Your task to perform on an android device: What's the news in Laos? Image 0: 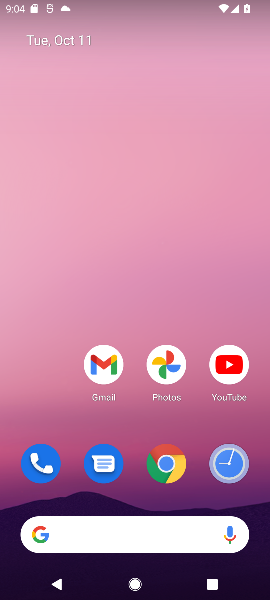
Step 0: drag from (103, 506) to (110, 241)
Your task to perform on an android device: What's the news in Laos? Image 1: 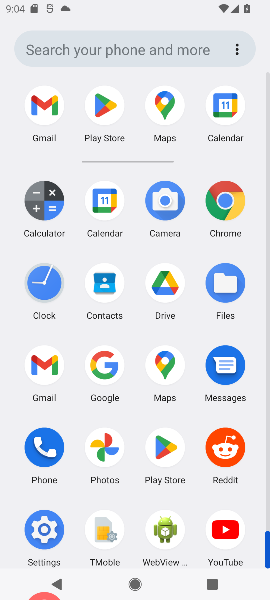
Step 1: click (99, 361)
Your task to perform on an android device: What's the news in Laos? Image 2: 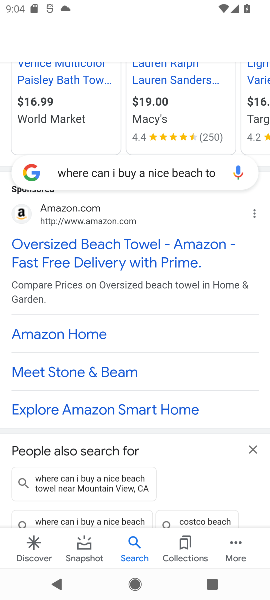
Step 2: click (93, 168)
Your task to perform on an android device: What's the news in Laos? Image 3: 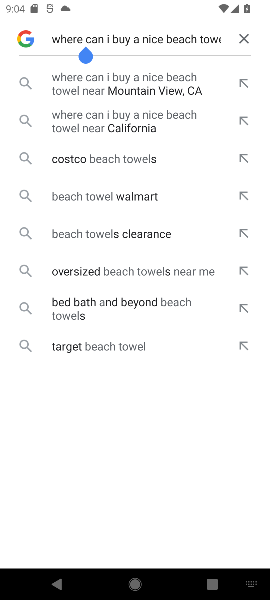
Step 3: click (247, 39)
Your task to perform on an android device: What's the news in Laos? Image 4: 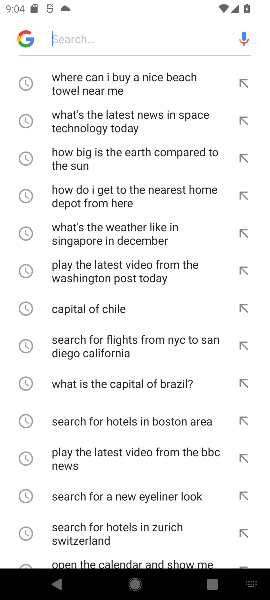
Step 4: click (129, 27)
Your task to perform on an android device: What's the news in Laos? Image 5: 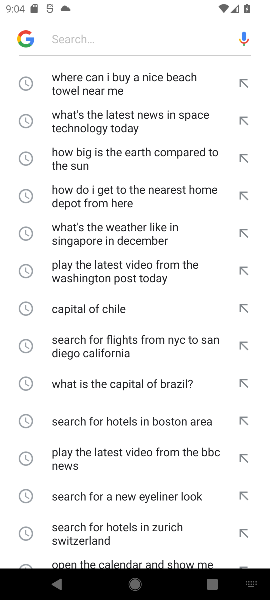
Step 5: type "What's the news in Laos? "
Your task to perform on an android device: What's the news in Laos? Image 6: 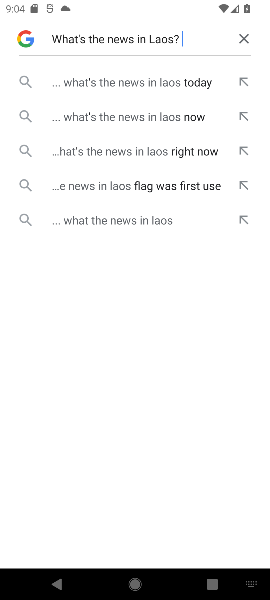
Step 6: click (109, 83)
Your task to perform on an android device: What's the news in Laos? Image 7: 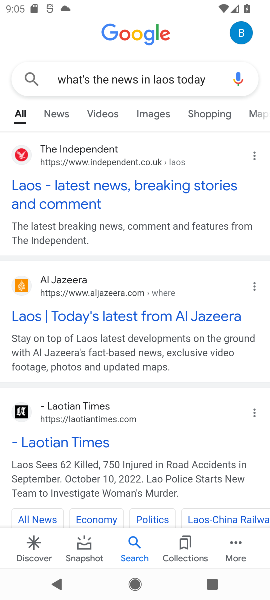
Step 7: click (109, 184)
Your task to perform on an android device: What's the news in Laos? Image 8: 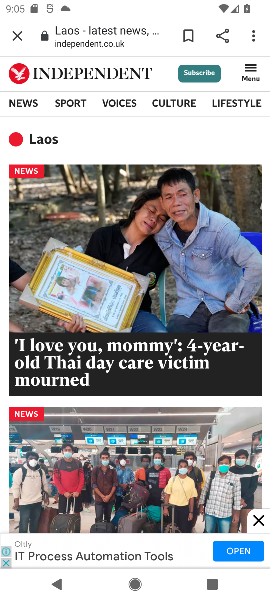
Step 8: task complete